Your task to perform on an android device: Open wifi settings Image 0: 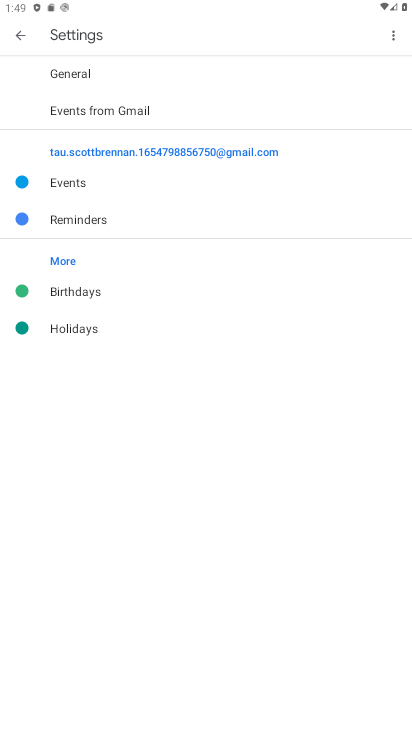
Step 0: press home button
Your task to perform on an android device: Open wifi settings Image 1: 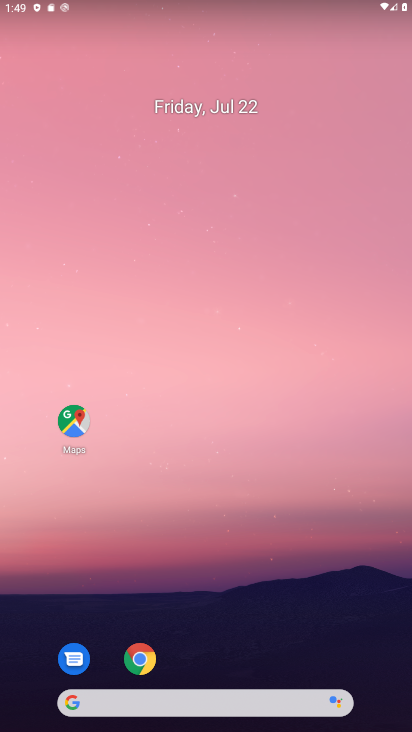
Step 1: drag from (252, 657) to (211, 95)
Your task to perform on an android device: Open wifi settings Image 2: 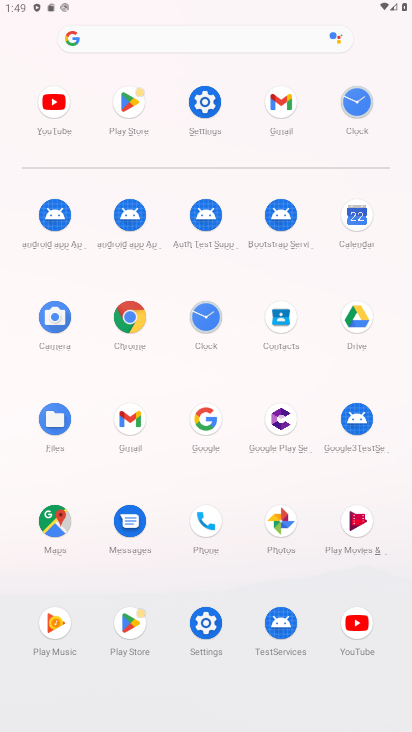
Step 2: click (206, 617)
Your task to perform on an android device: Open wifi settings Image 3: 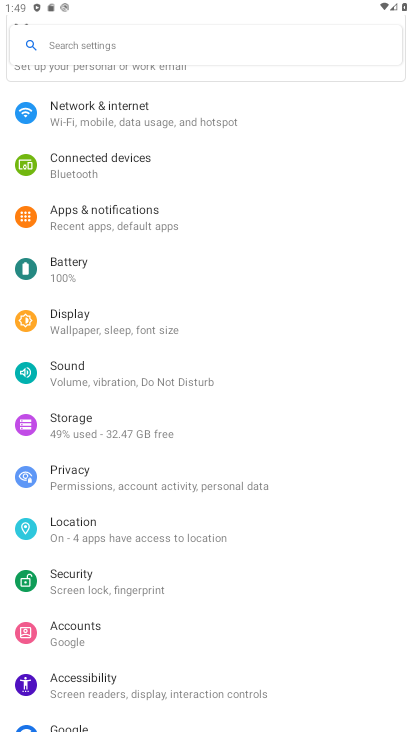
Step 3: click (160, 112)
Your task to perform on an android device: Open wifi settings Image 4: 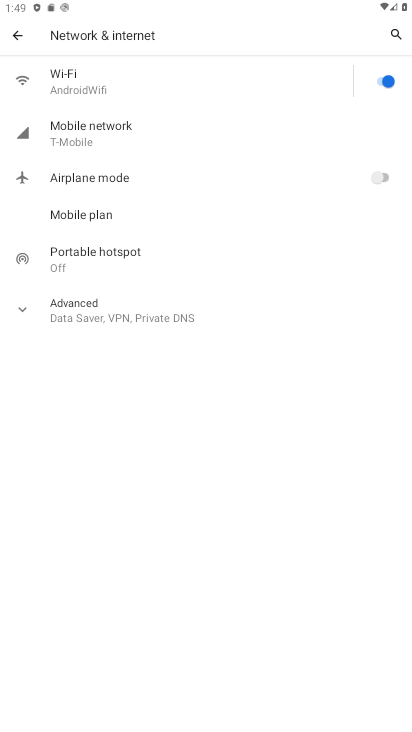
Step 4: click (177, 92)
Your task to perform on an android device: Open wifi settings Image 5: 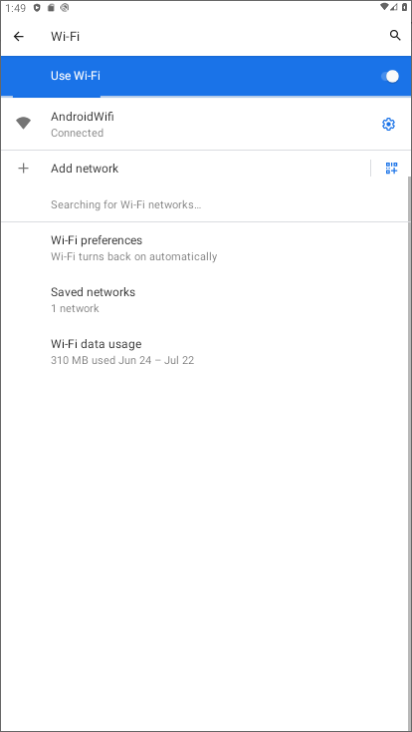
Step 5: task complete